Your task to perform on an android device: Go to Google maps Image 0: 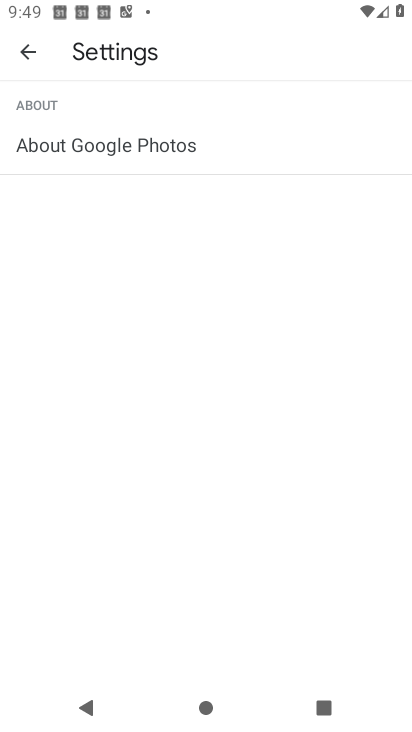
Step 0: press home button
Your task to perform on an android device: Go to Google maps Image 1: 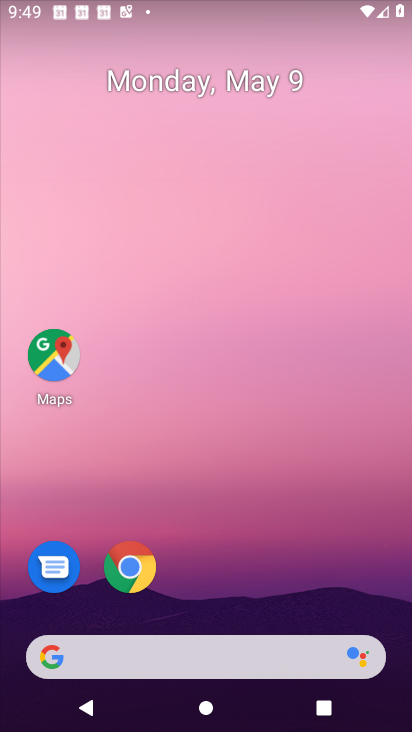
Step 1: click (58, 349)
Your task to perform on an android device: Go to Google maps Image 2: 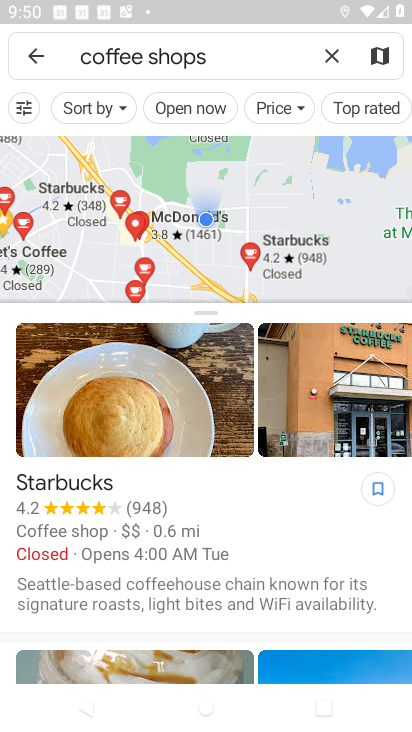
Step 2: task complete